Your task to perform on an android device: turn on showing notifications on the lock screen Image 0: 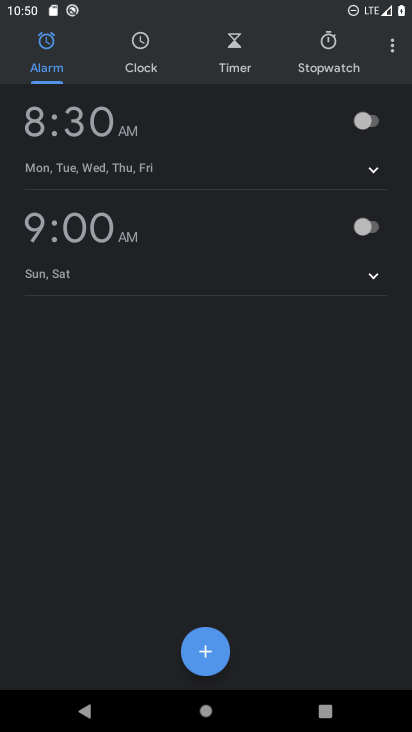
Step 0: press home button
Your task to perform on an android device: turn on showing notifications on the lock screen Image 1: 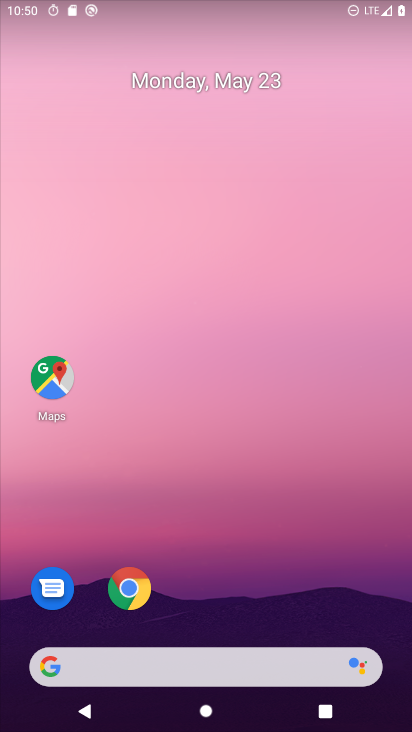
Step 1: drag from (395, 708) to (330, 154)
Your task to perform on an android device: turn on showing notifications on the lock screen Image 2: 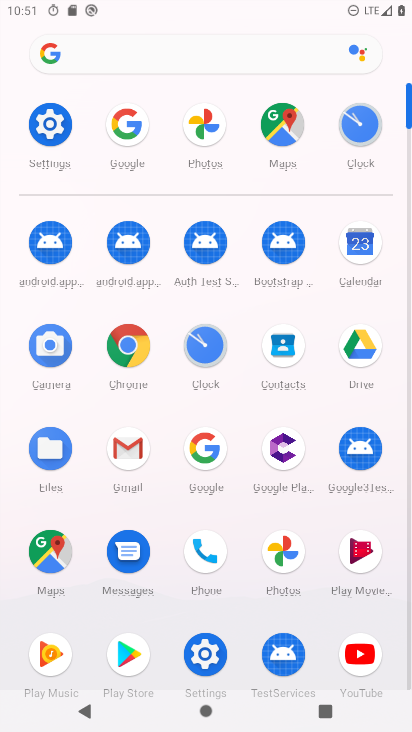
Step 2: click (207, 658)
Your task to perform on an android device: turn on showing notifications on the lock screen Image 3: 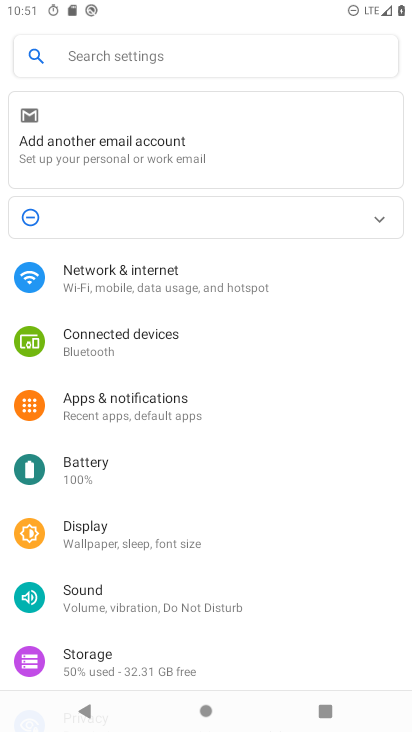
Step 3: click (123, 271)
Your task to perform on an android device: turn on showing notifications on the lock screen Image 4: 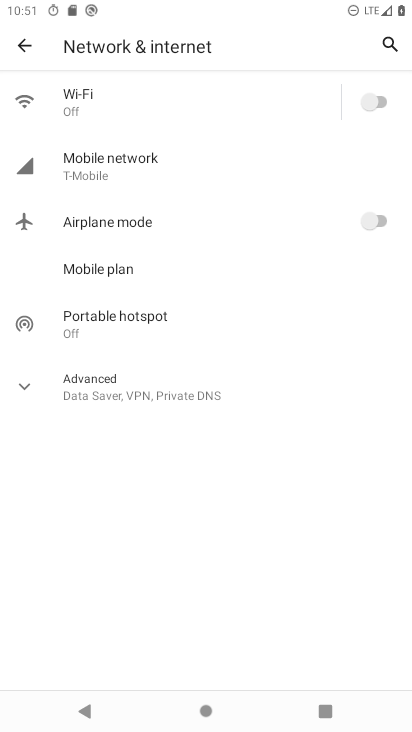
Step 4: click (26, 49)
Your task to perform on an android device: turn on showing notifications on the lock screen Image 5: 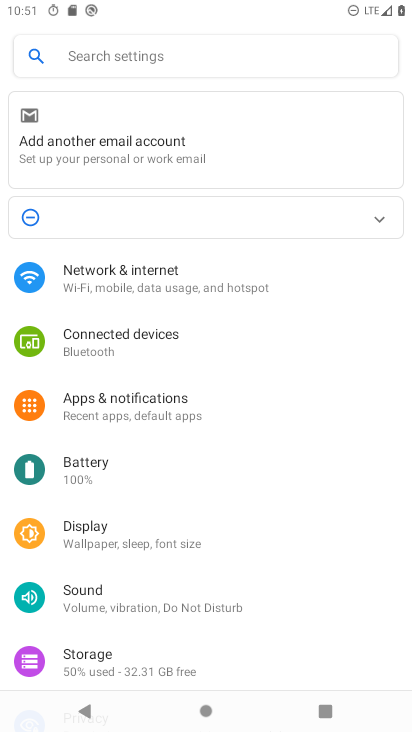
Step 5: click (120, 397)
Your task to perform on an android device: turn on showing notifications on the lock screen Image 6: 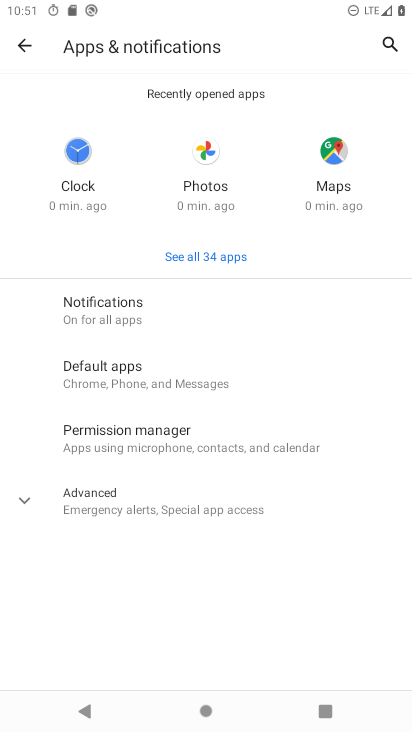
Step 6: click (88, 302)
Your task to perform on an android device: turn on showing notifications on the lock screen Image 7: 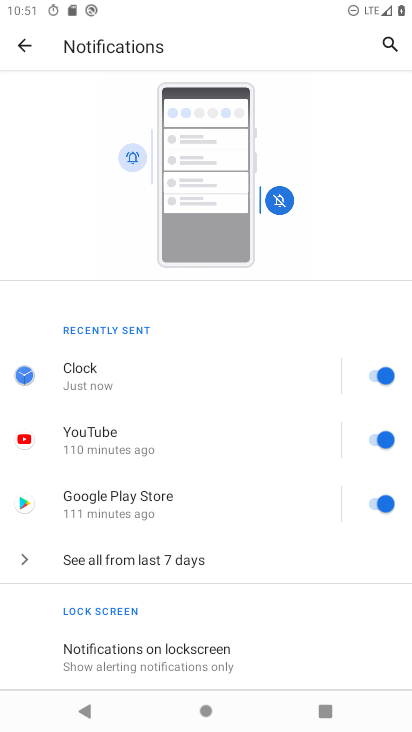
Step 7: drag from (265, 641) to (273, 385)
Your task to perform on an android device: turn on showing notifications on the lock screen Image 8: 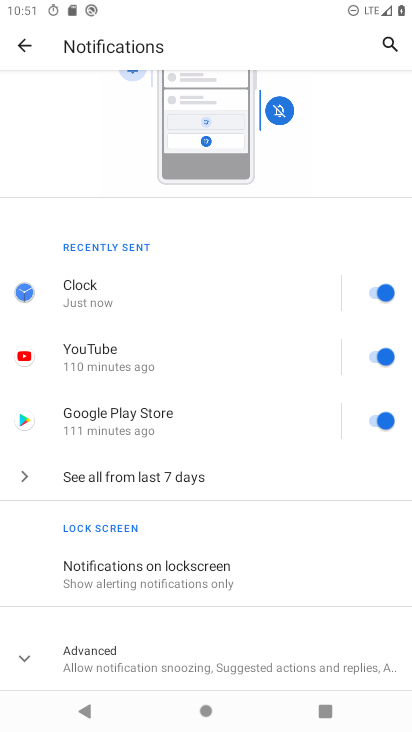
Step 8: click (146, 564)
Your task to perform on an android device: turn on showing notifications on the lock screen Image 9: 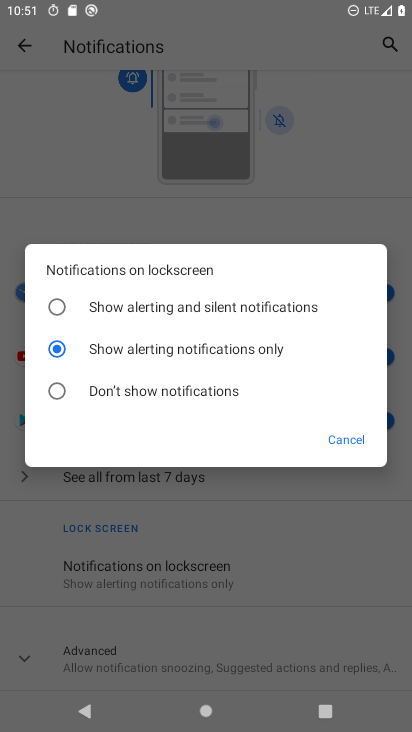
Step 9: click (61, 300)
Your task to perform on an android device: turn on showing notifications on the lock screen Image 10: 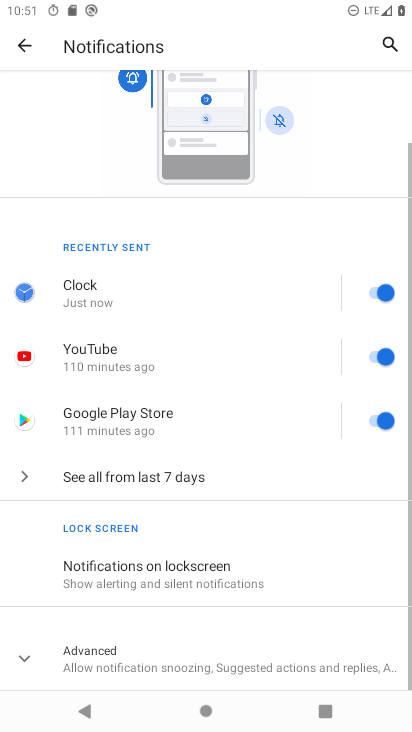
Step 10: task complete